Your task to perform on an android device: change timer sound Image 0: 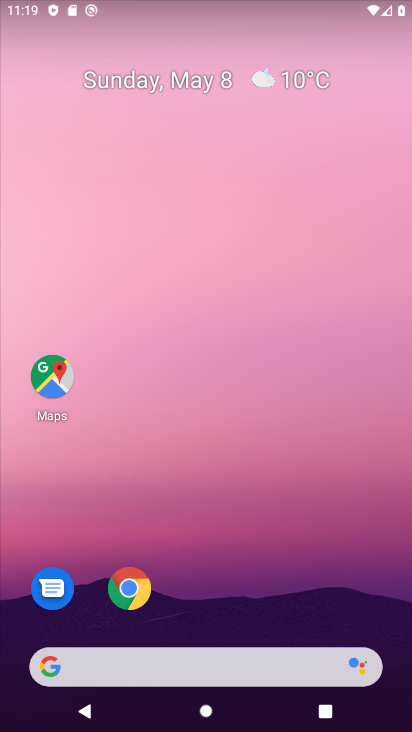
Step 0: drag from (236, 568) to (323, 6)
Your task to perform on an android device: change timer sound Image 1: 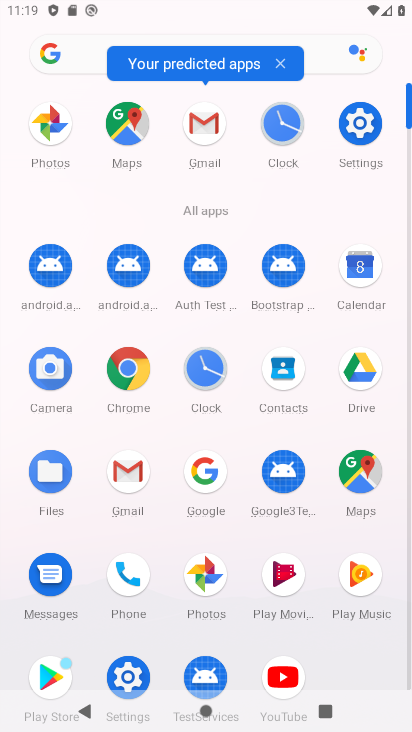
Step 1: click (267, 131)
Your task to perform on an android device: change timer sound Image 2: 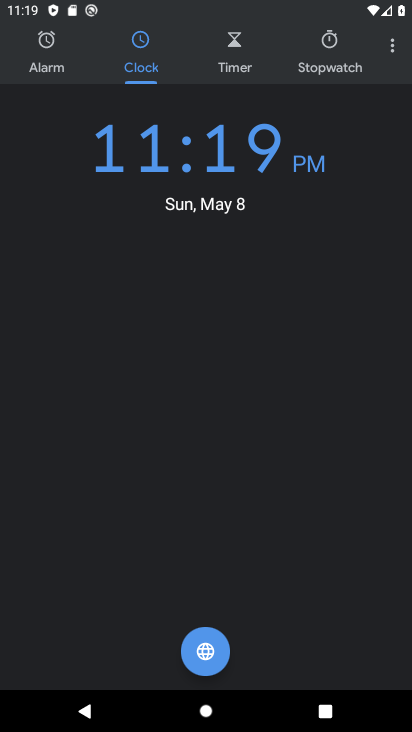
Step 2: click (392, 47)
Your task to perform on an android device: change timer sound Image 3: 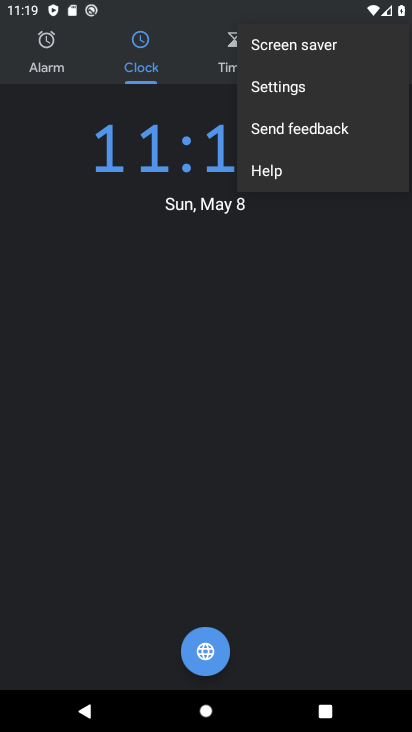
Step 3: click (272, 101)
Your task to perform on an android device: change timer sound Image 4: 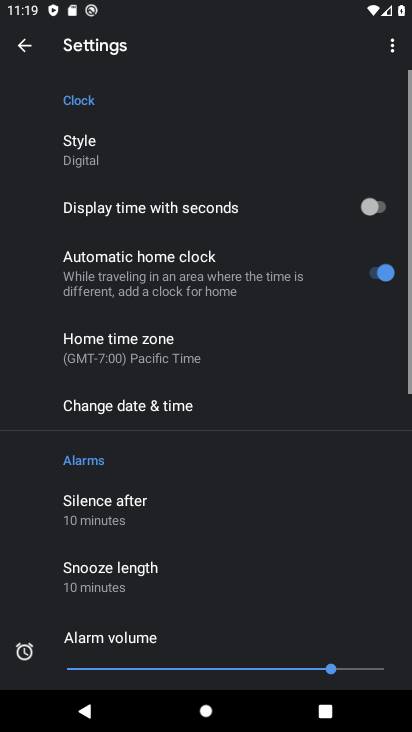
Step 4: drag from (145, 576) to (200, 179)
Your task to perform on an android device: change timer sound Image 5: 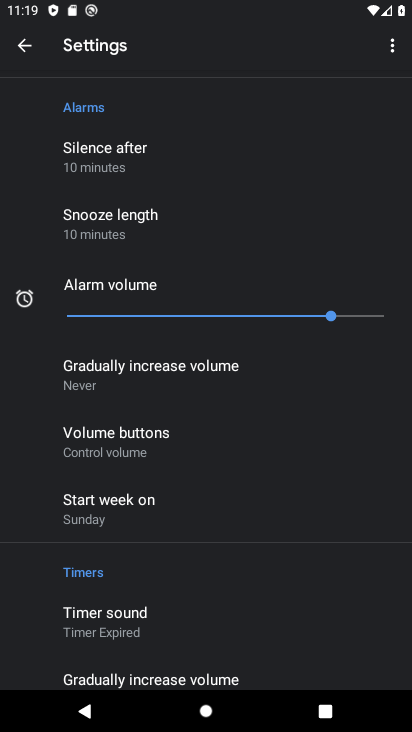
Step 5: click (137, 605)
Your task to perform on an android device: change timer sound Image 6: 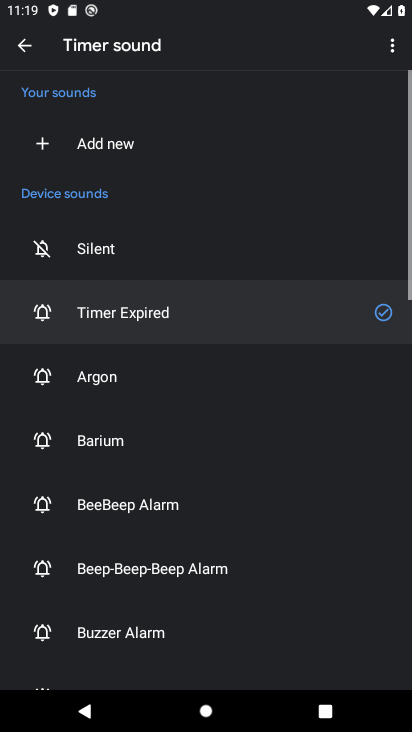
Step 6: click (104, 370)
Your task to perform on an android device: change timer sound Image 7: 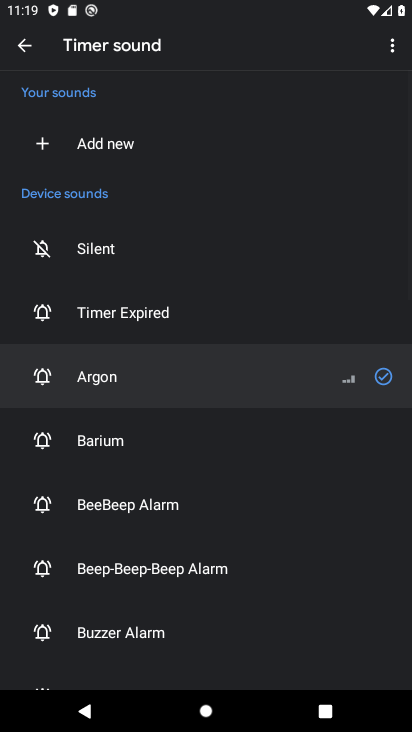
Step 7: task complete